Your task to perform on an android device: Find coffee shops on Maps Image 0: 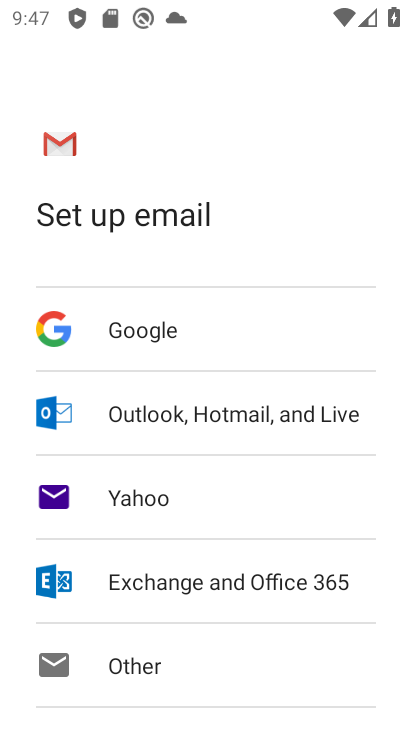
Step 0: press home button
Your task to perform on an android device: Find coffee shops on Maps Image 1: 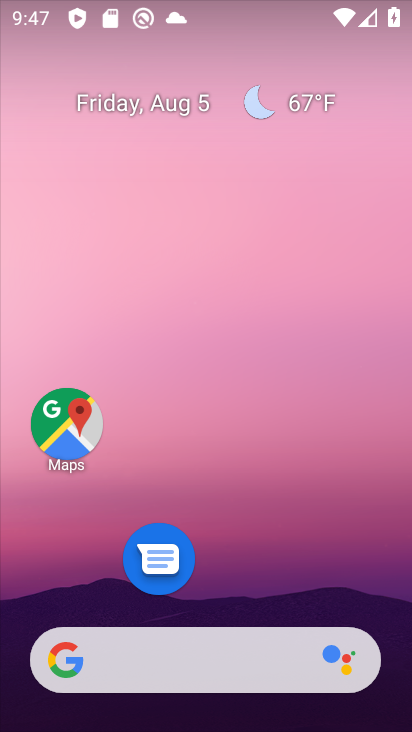
Step 1: drag from (322, 573) to (350, 52)
Your task to perform on an android device: Find coffee shops on Maps Image 2: 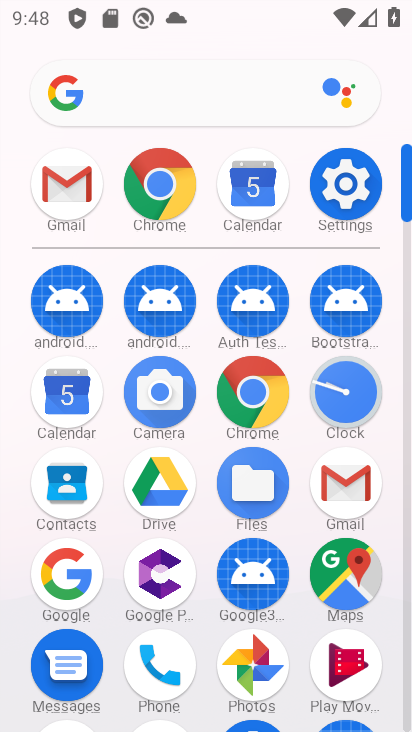
Step 2: click (341, 582)
Your task to perform on an android device: Find coffee shops on Maps Image 3: 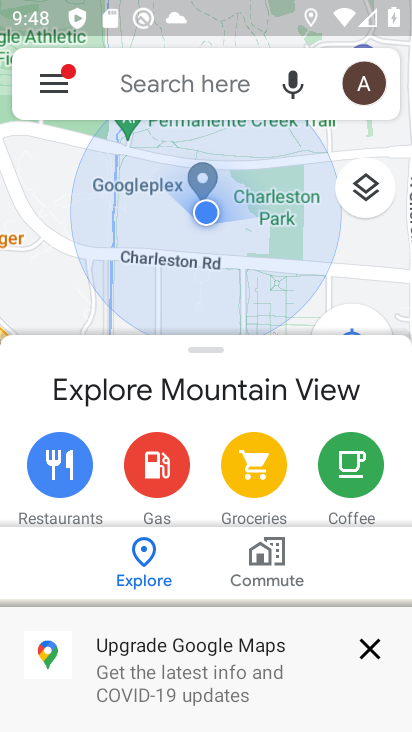
Step 3: click (188, 103)
Your task to perform on an android device: Find coffee shops on Maps Image 4: 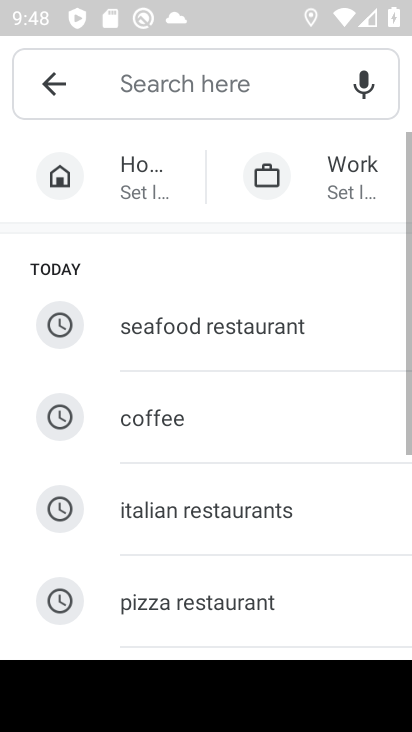
Step 4: click (219, 421)
Your task to perform on an android device: Find coffee shops on Maps Image 5: 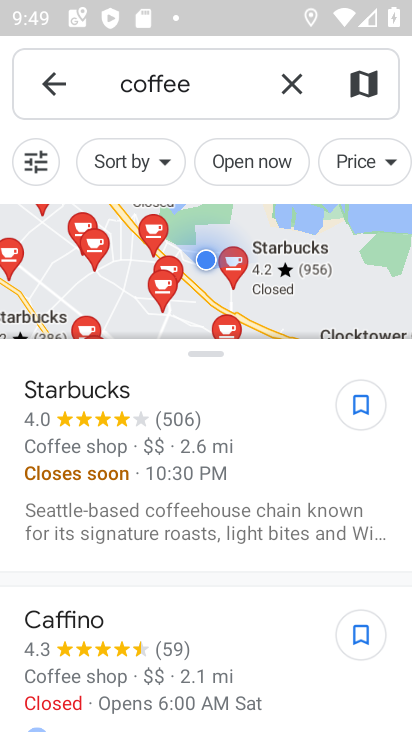
Step 5: task complete